Your task to perform on an android device: Open Chrome and go to settings Image 0: 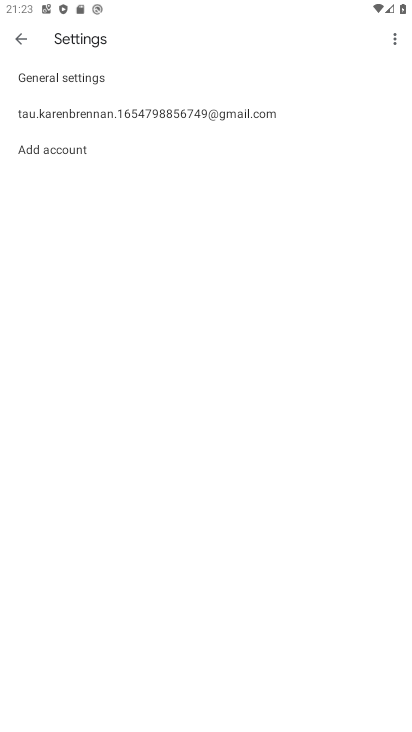
Step 0: press home button
Your task to perform on an android device: Open Chrome and go to settings Image 1: 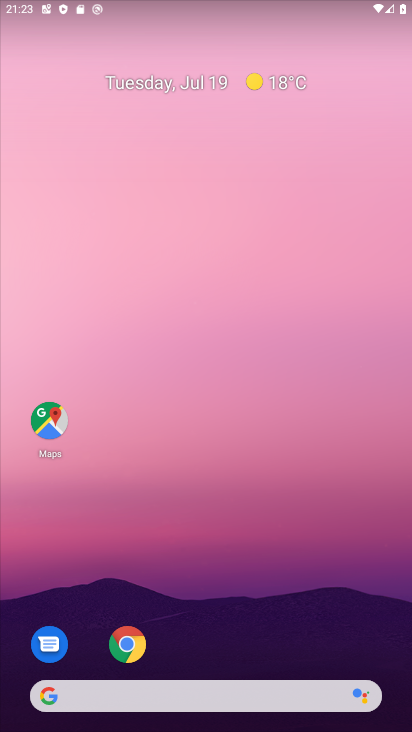
Step 1: drag from (178, 725) to (188, 312)
Your task to perform on an android device: Open Chrome and go to settings Image 2: 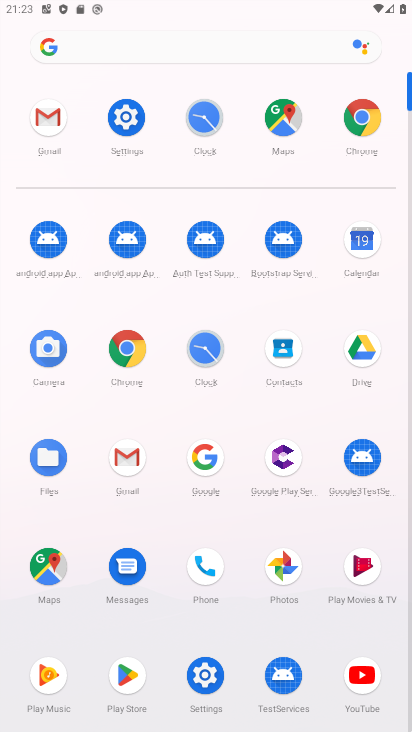
Step 2: click (358, 116)
Your task to perform on an android device: Open Chrome and go to settings Image 3: 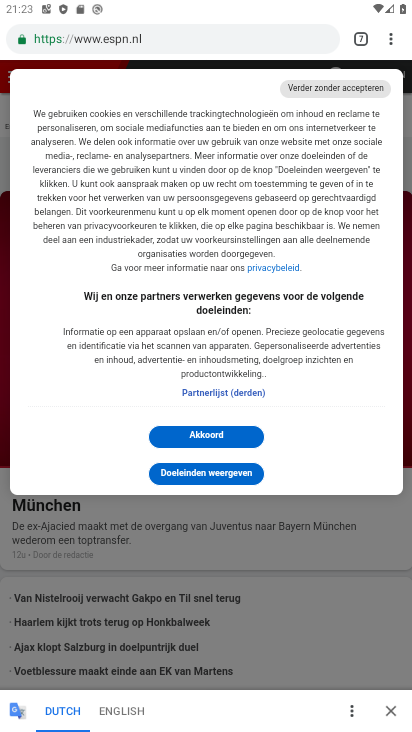
Step 3: click (390, 43)
Your task to perform on an android device: Open Chrome and go to settings Image 4: 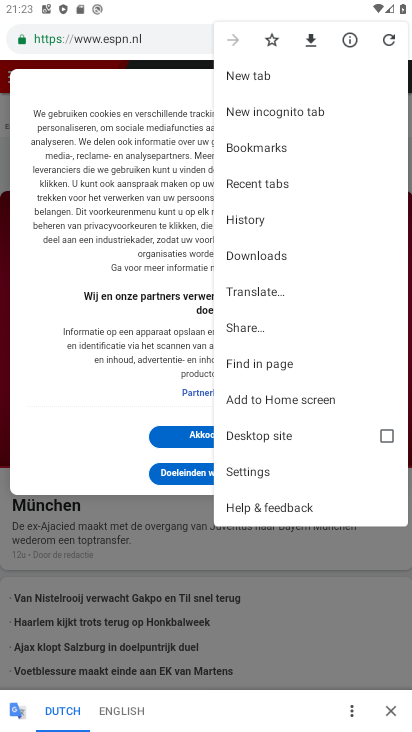
Step 4: click (243, 472)
Your task to perform on an android device: Open Chrome and go to settings Image 5: 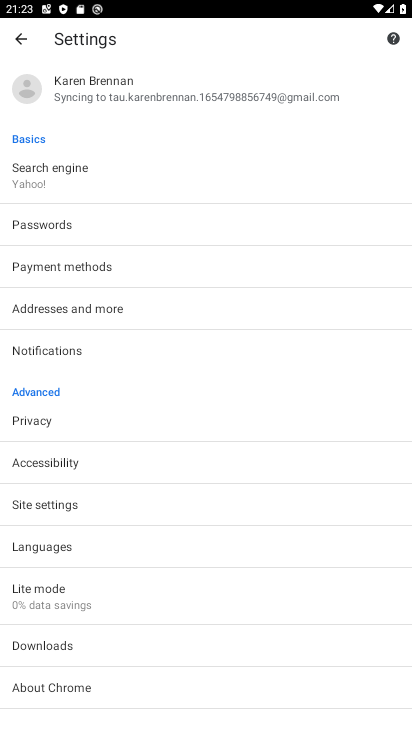
Step 5: task complete